Your task to perform on an android device: Search for Mexican restaurants on Maps Image 0: 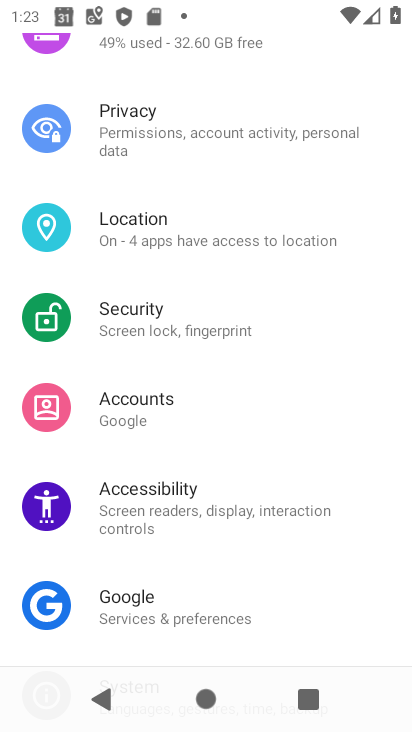
Step 0: press home button
Your task to perform on an android device: Search for Mexican restaurants on Maps Image 1: 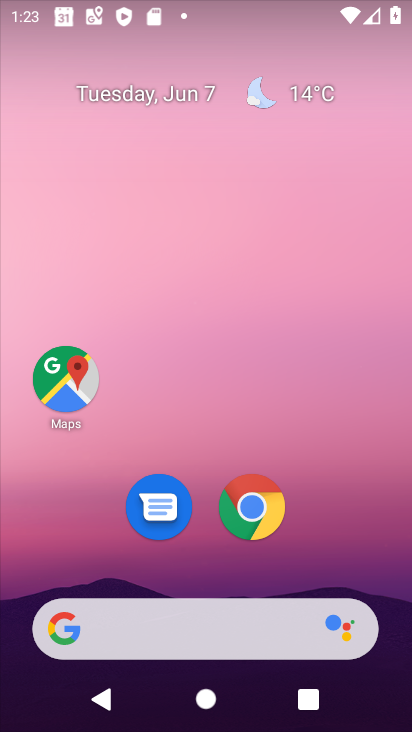
Step 1: click (69, 376)
Your task to perform on an android device: Search for Mexican restaurants on Maps Image 2: 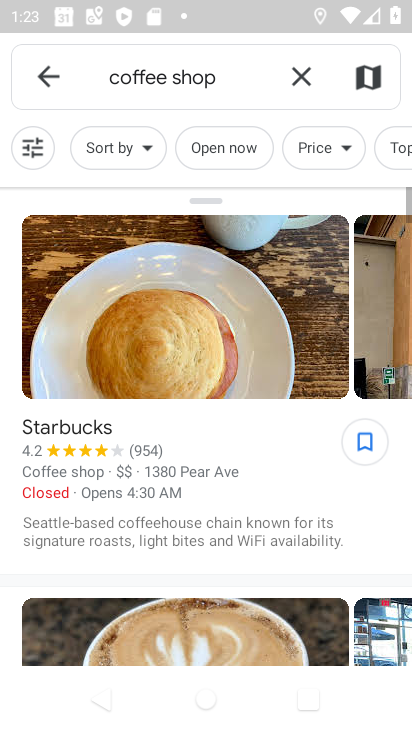
Step 2: click (296, 72)
Your task to perform on an android device: Search for Mexican restaurants on Maps Image 3: 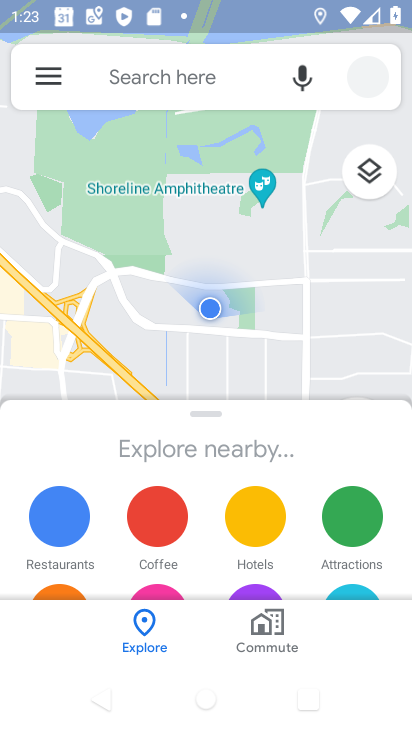
Step 3: click (181, 68)
Your task to perform on an android device: Search for Mexican restaurants on Maps Image 4: 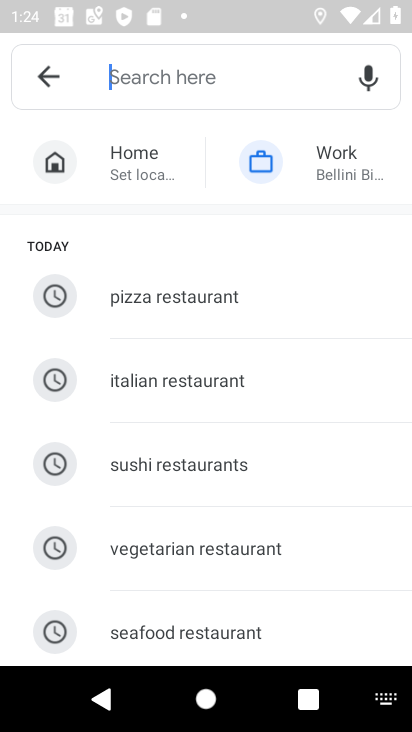
Step 4: type "mexican restta"
Your task to perform on an android device: Search for Mexican restaurants on Maps Image 5: 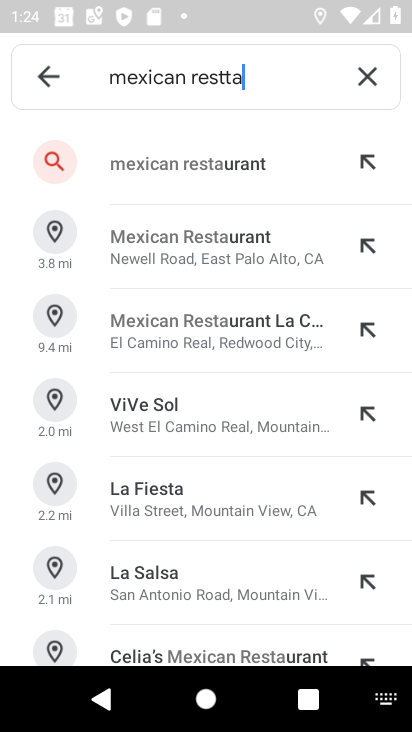
Step 5: click (184, 166)
Your task to perform on an android device: Search for Mexican restaurants on Maps Image 6: 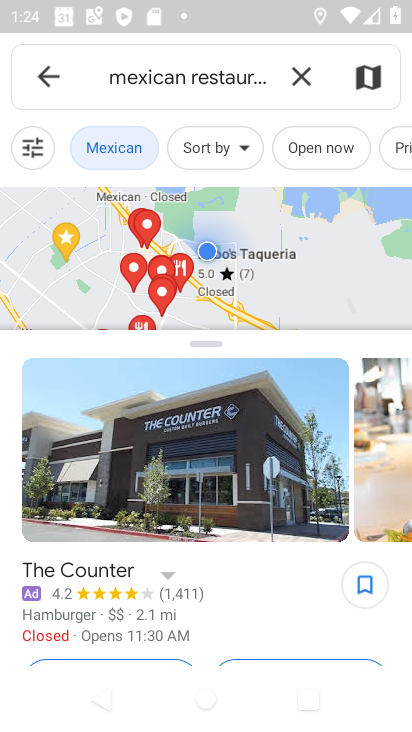
Step 6: task complete